Your task to perform on an android device: Go to wifi settings Image 0: 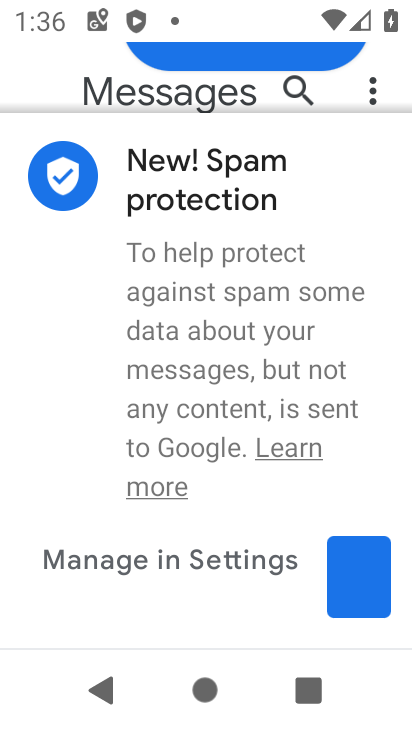
Step 0: press home button
Your task to perform on an android device: Go to wifi settings Image 1: 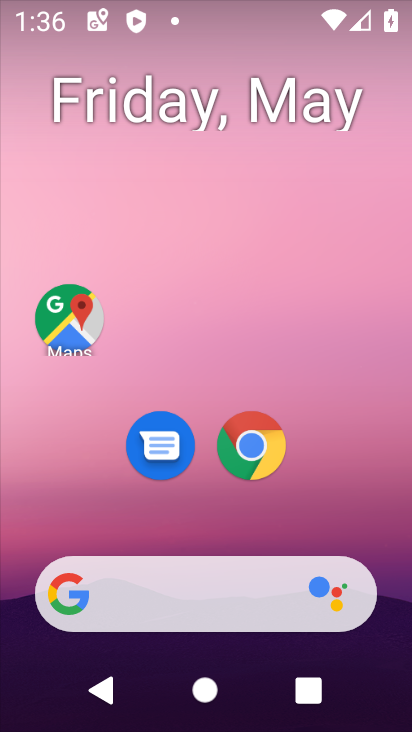
Step 1: drag from (402, 607) to (351, 106)
Your task to perform on an android device: Go to wifi settings Image 2: 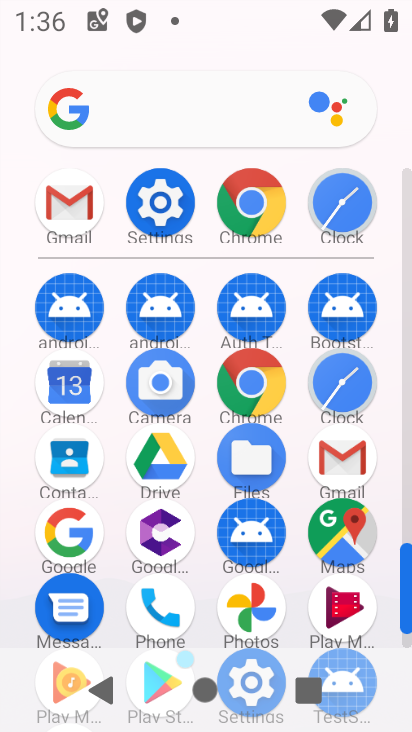
Step 2: click (407, 527)
Your task to perform on an android device: Go to wifi settings Image 3: 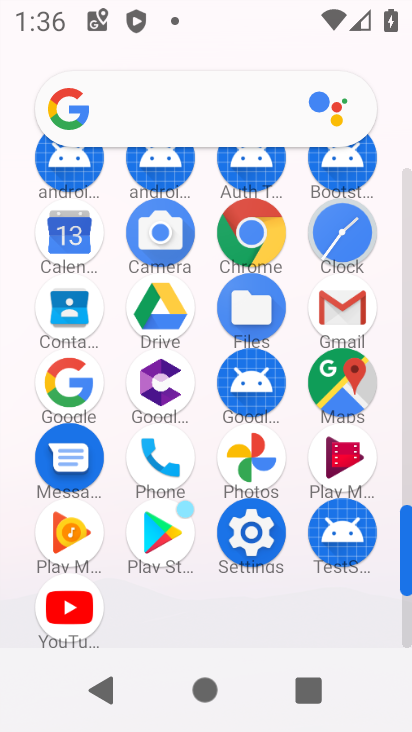
Step 3: click (254, 534)
Your task to perform on an android device: Go to wifi settings Image 4: 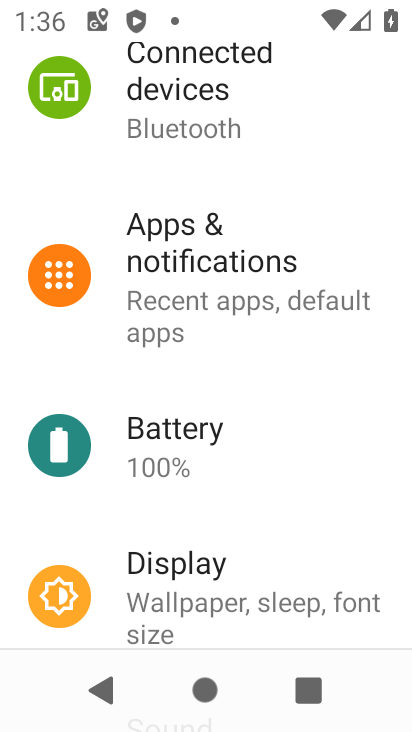
Step 4: drag from (356, 212) to (360, 633)
Your task to perform on an android device: Go to wifi settings Image 5: 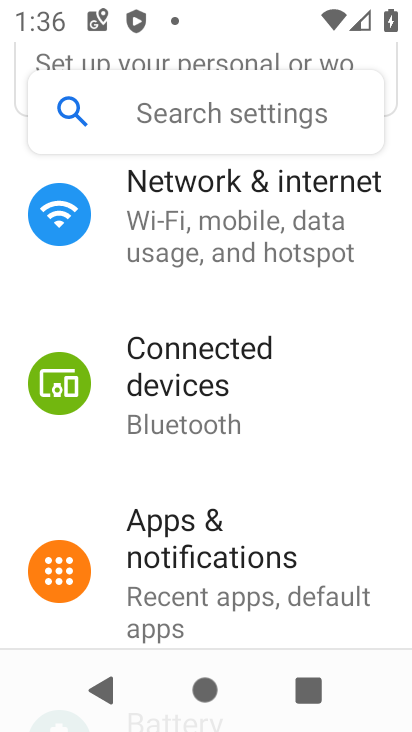
Step 5: click (195, 237)
Your task to perform on an android device: Go to wifi settings Image 6: 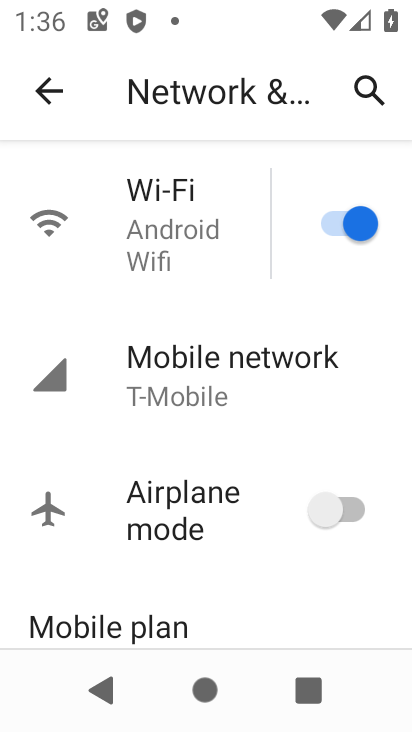
Step 6: click (116, 205)
Your task to perform on an android device: Go to wifi settings Image 7: 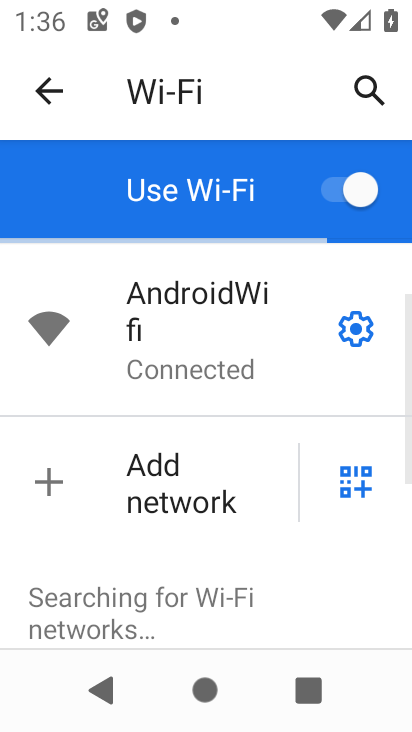
Step 7: drag from (207, 612) to (240, 310)
Your task to perform on an android device: Go to wifi settings Image 8: 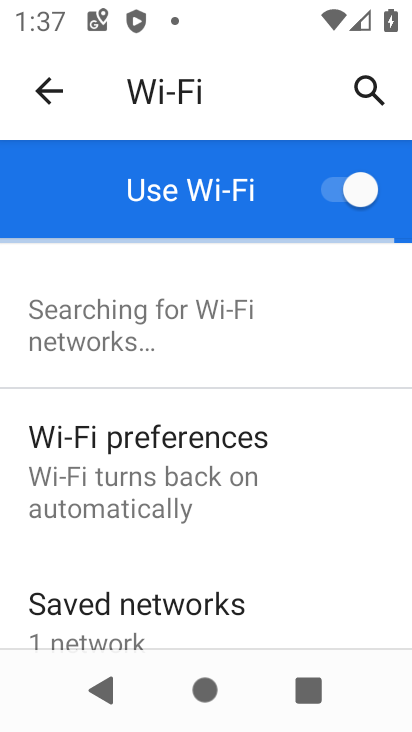
Step 8: drag from (218, 591) to (258, 292)
Your task to perform on an android device: Go to wifi settings Image 9: 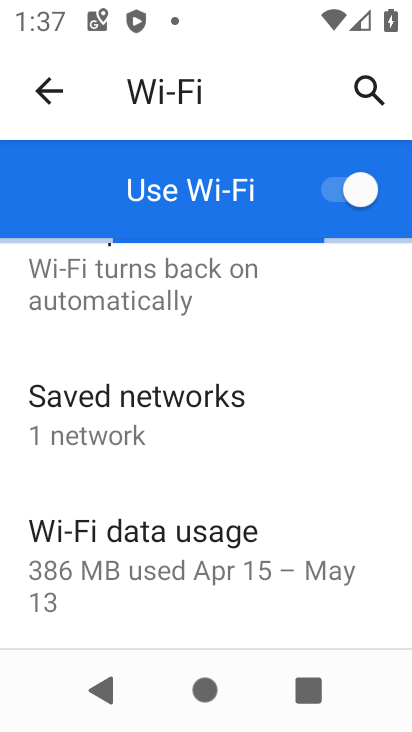
Step 9: drag from (257, 342) to (227, 669)
Your task to perform on an android device: Go to wifi settings Image 10: 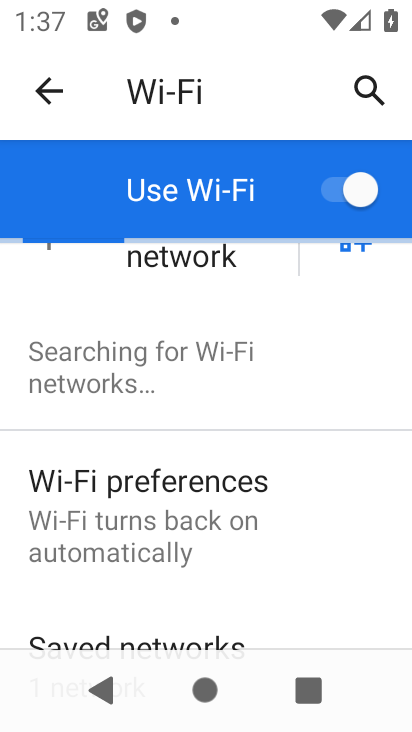
Step 10: drag from (313, 342) to (280, 569)
Your task to perform on an android device: Go to wifi settings Image 11: 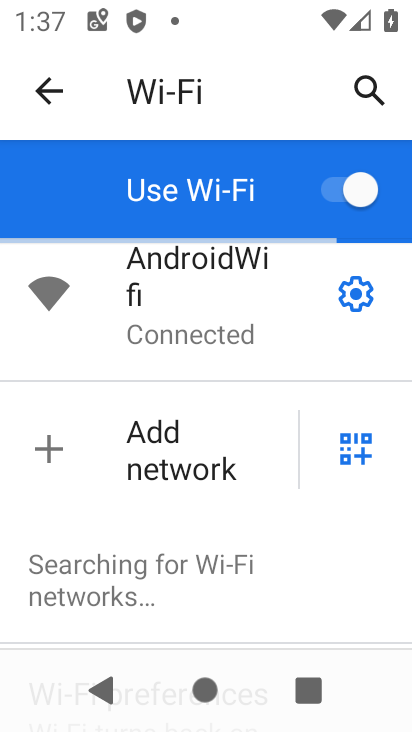
Step 11: click (356, 290)
Your task to perform on an android device: Go to wifi settings Image 12: 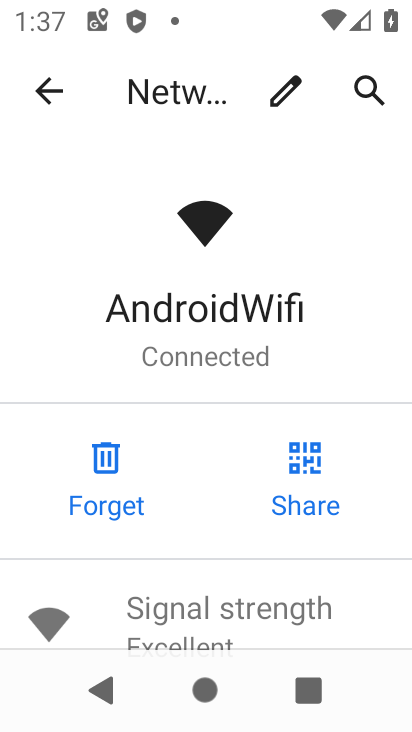
Step 12: task complete